Your task to perform on an android device: open app "Etsy: Buy & Sell Unique Items" (install if not already installed) and enter user name: "camp@inbox.com" and password: "unrelated" Image 0: 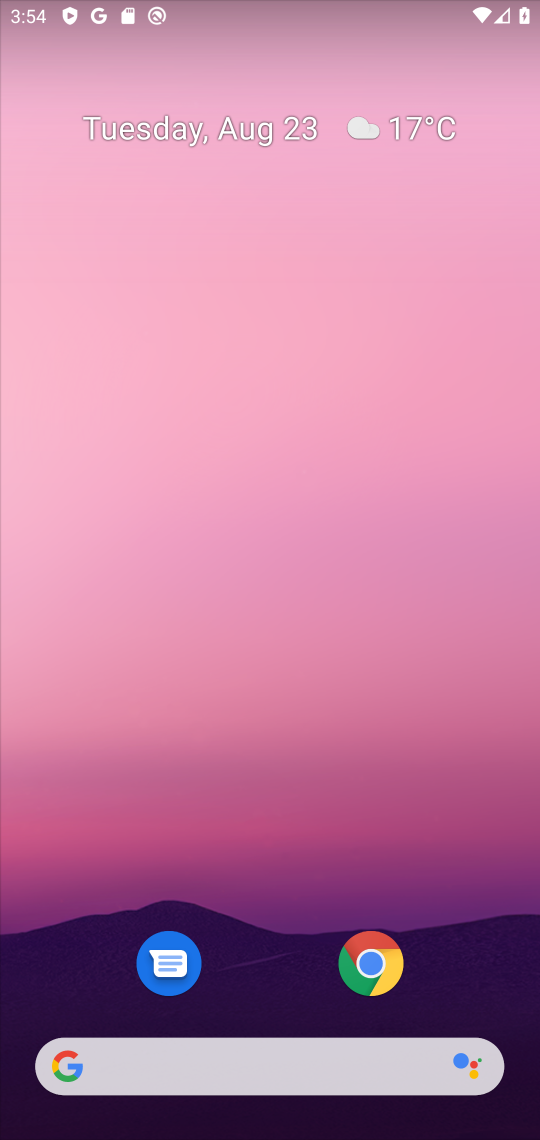
Step 0: press home button
Your task to perform on an android device: open app "Etsy: Buy & Sell Unique Items" (install if not already installed) and enter user name: "camp@inbox.com" and password: "unrelated" Image 1: 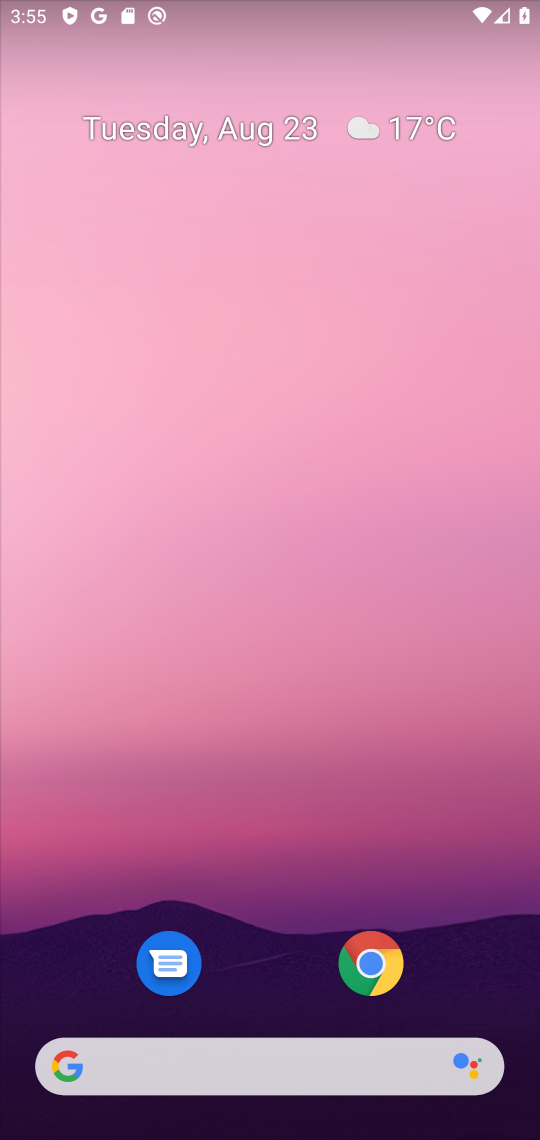
Step 1: drag from (280, 1014) to (316, 93)
Your task to perform on an android device: open app "Etsy: Buy & Sell Unique Items" (install if not already installed) and enter user name: "camp@inbox.com" and password: "unrelated" Image 2: 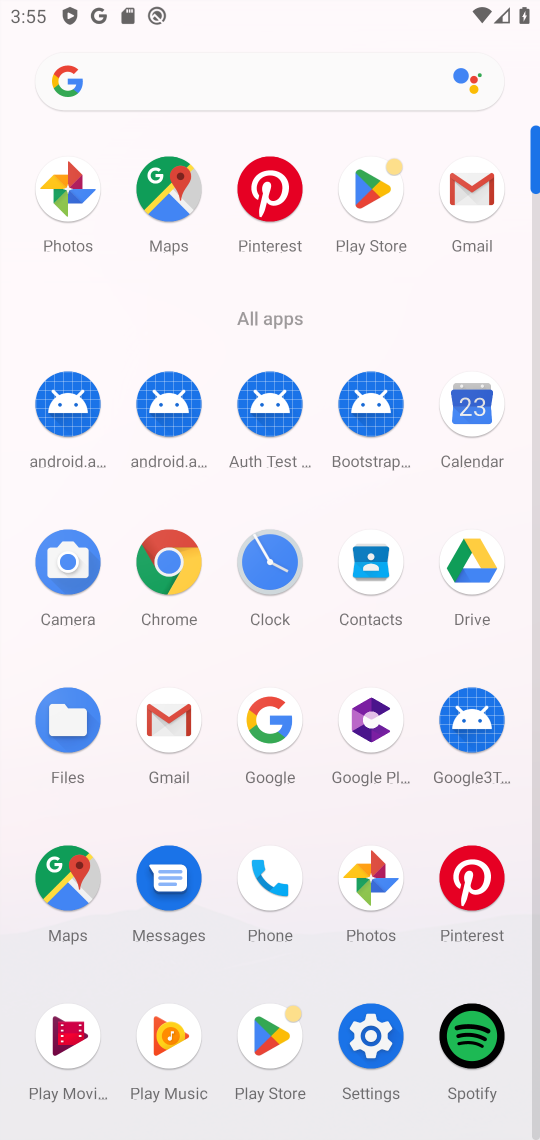
Step 2: click (372, 180)
Your task to perform on an android device: open app "Etsy: Buy & Sell Unique Items" (install if not already installed) and enter user name: "camp@inbox.com" and password: "unrelated" Image 3: 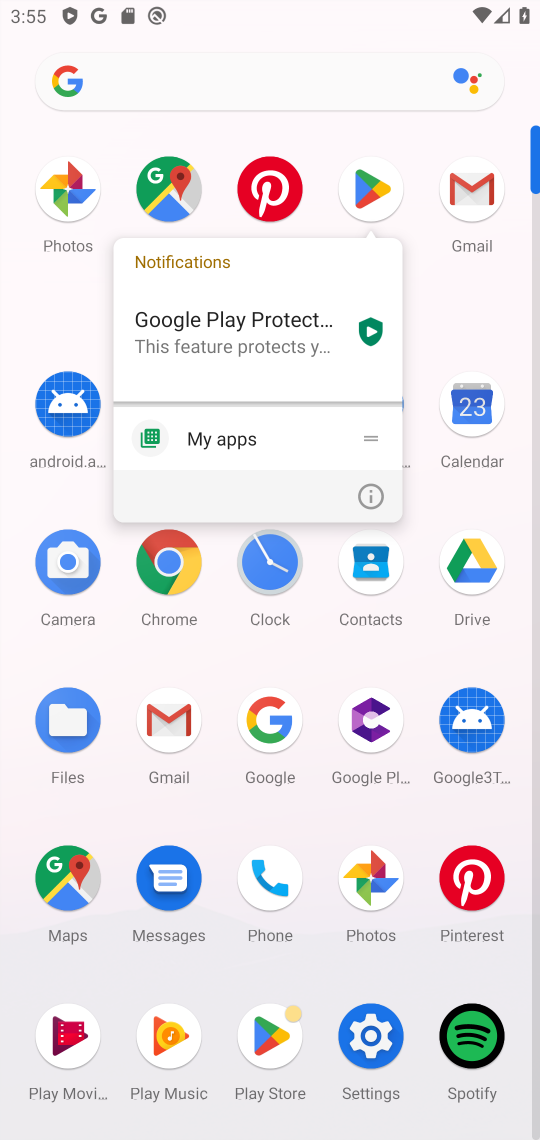
Step 3: click (373, 187)
Your task to perform on an android device: open app "Etsy: Buy & Sell Unique Items" (install if not already installed) and enter user name: "camp@inbox.com" and password: "unrelated" Image 4: 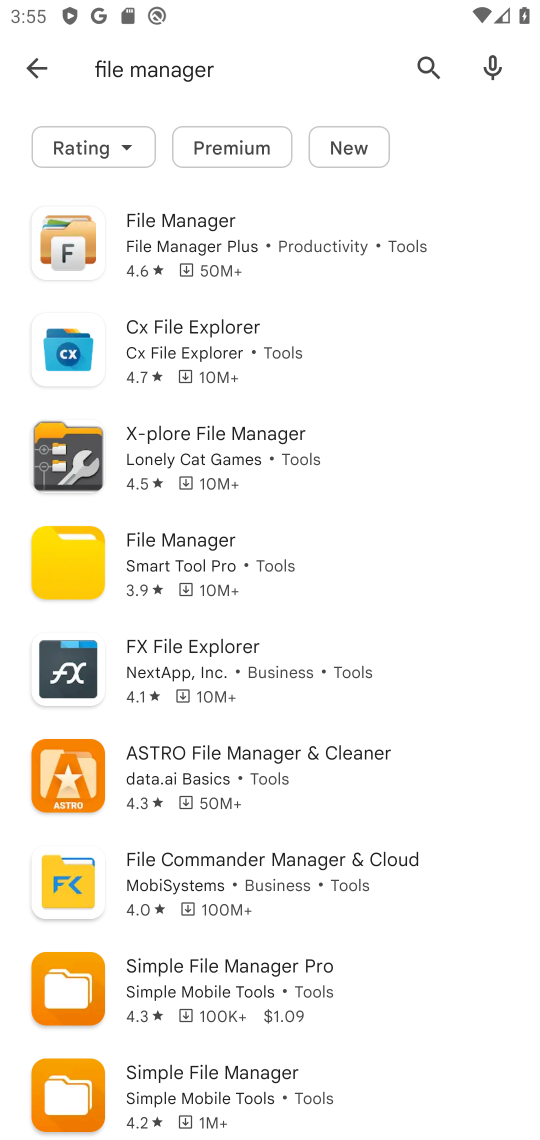
Step 4: click (423, 72)
Your task to perform on an android device: open app "Etsy: Buy & Sell Unique Items" (install if not already installed) and enter user name: "camp@inbox.com" and password: "unrelated" Image 5: 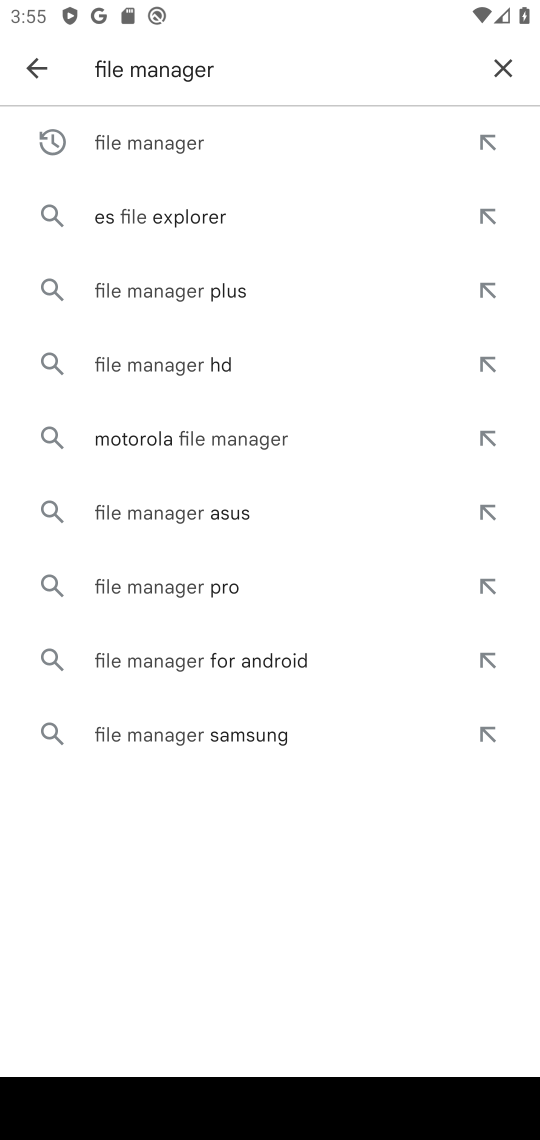
Step 5: click (513, 67)
Your task to perform on an android device: open app "Etsy: Buy & Sell Unique Items" (install if not already installed) and enter user name: "camp@inbox.com" and password: "unrelated" Image 6: 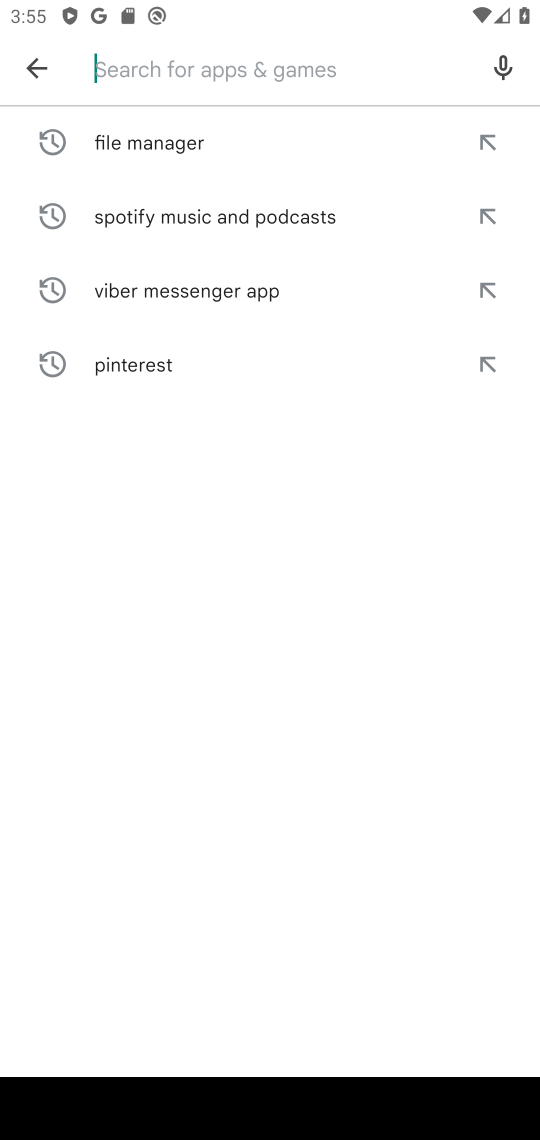
Step 6: type "Etsy"
Your task to perform on an android device: open app "Etsy: Buy & Sell Unique Items" (install if not already installed) and enter user name: "camp@inbox.com" and password: "unrelated" Image 7: 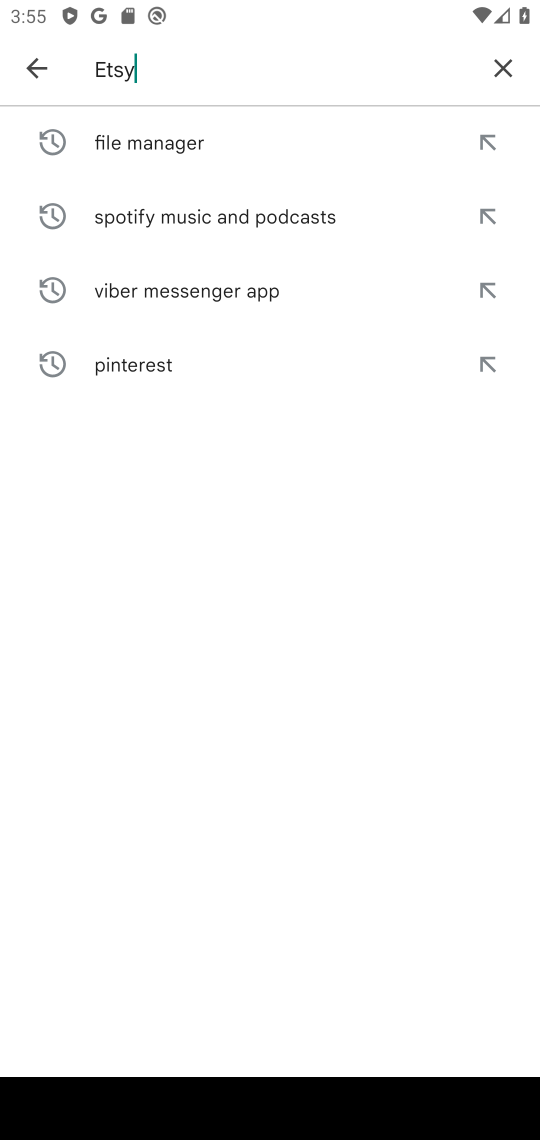
Step 7: type ""
Your task to perform on an android device: open app "Etsy: Buy & Sell Unique Items" (install if not already installed) and enter user name: "camp@inbox.com" and password: "unrelated" Image 8: 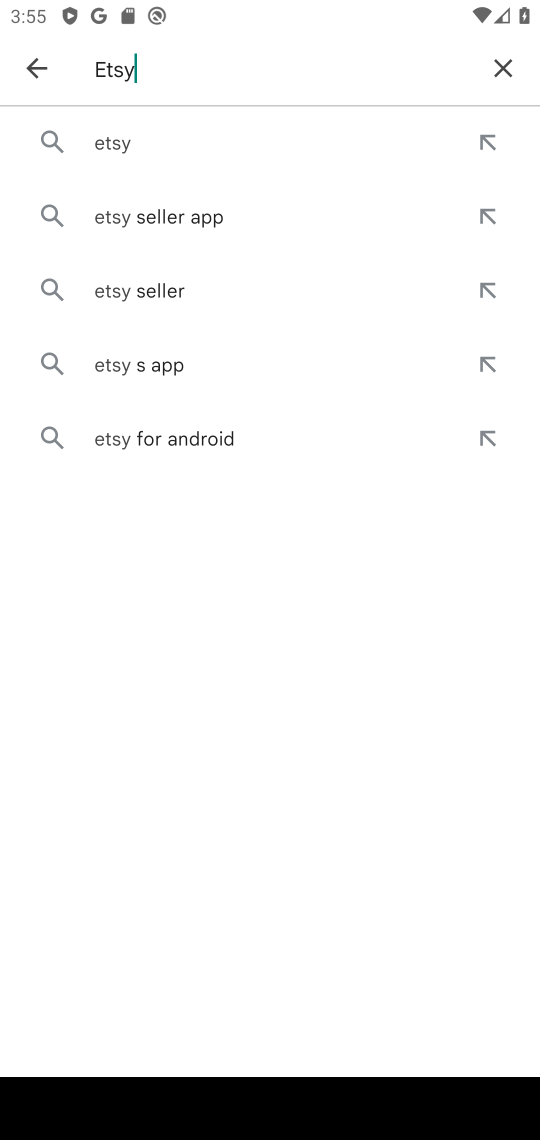
Step 8: click (124, 142)
Your task to perform on an android device: open app "Etsy: Buy & Sell Unique Items" (install if not already installed) and enter user name: "camp@inbox.com" and password: "unrelated" Image 9: 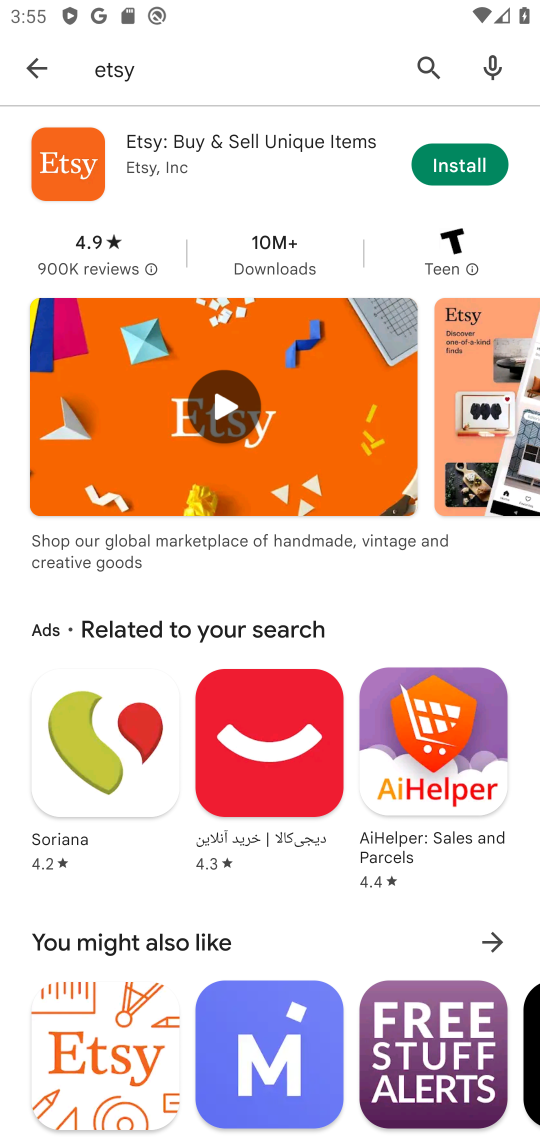
Step 9: click (458, 157)
Your task to perform on an android device: open app "Etsy: Buy & Sell Unique Items" (install if not already installed) and enter user name: "camp@inbox.com" and password: "unrelated" Image 10: 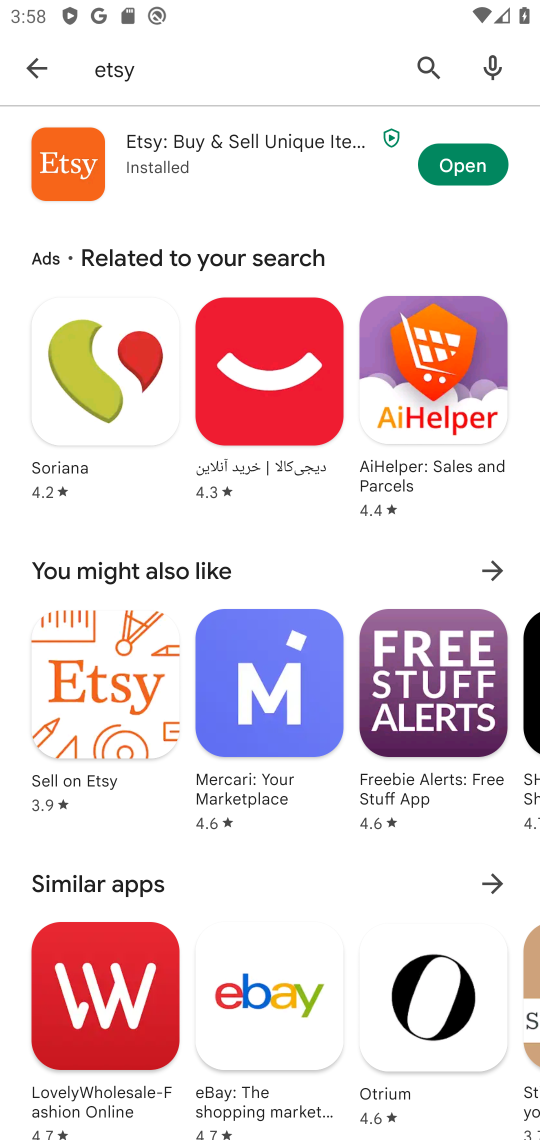
Step 10: click (481, 153)
Your task to perform on an android device: open app "Etsy: Buy & Sell Unique Items" (install if not already installed) and enter user name: "camp@inbox.com" and password: "unrelated" Image 11: 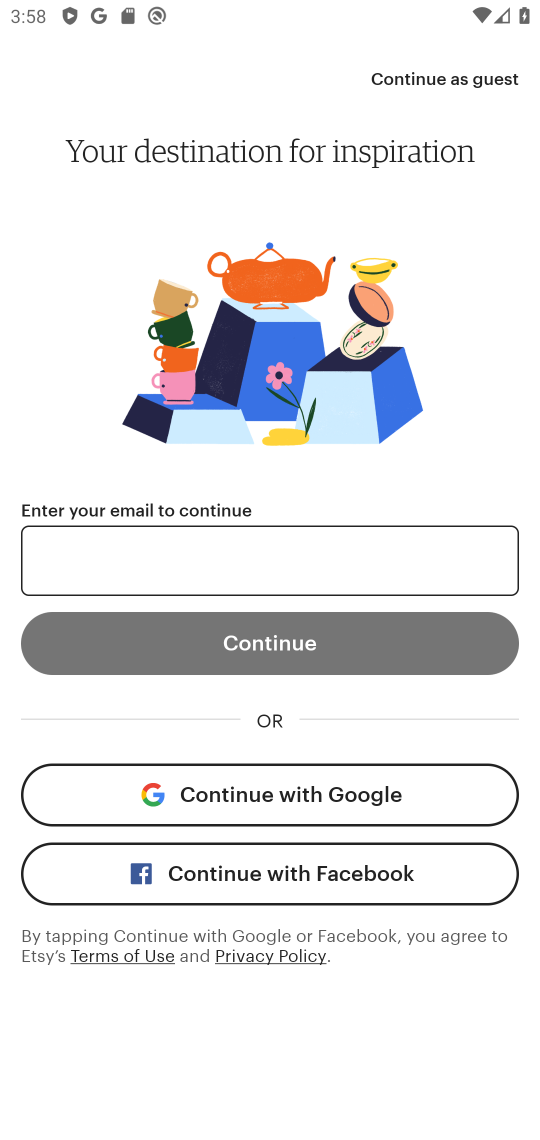
Step 11: type "camp@inbox.com"
Your task to perform on an android device: open app "Etsy: Buy & Sell Unique Items" (install if not already installed) and enter user name: "camp@inbox.com" and password: "unrelated" Image 12: 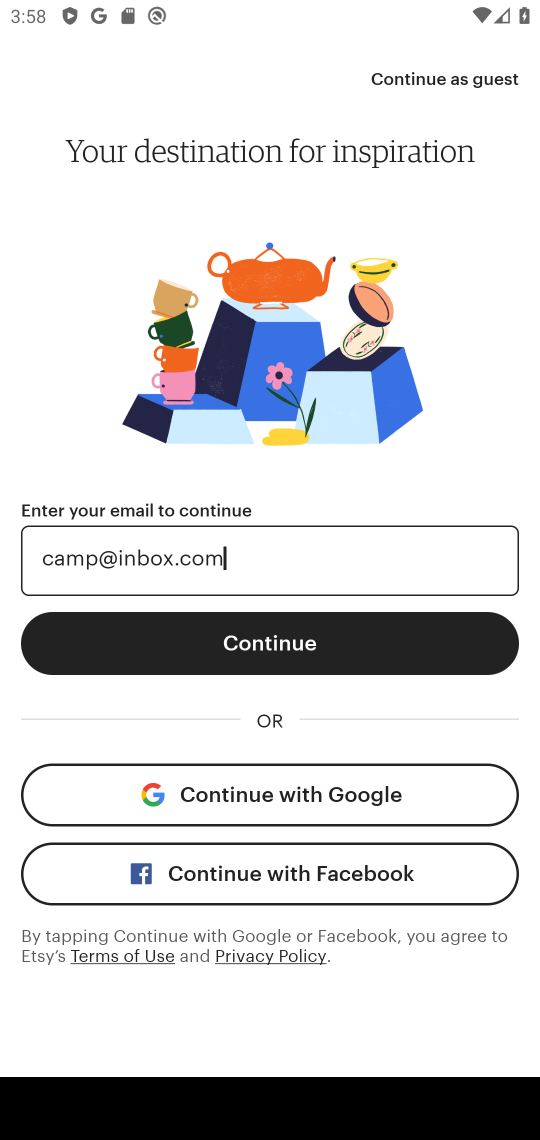
Step 12: click (286, 645)
Your task to perform on an android device: open app "Etsy: Buy & Sell Unique Items" (install if not already installed) and enter user name: "camp@inbox.com" and password: "unrelated" Image 13: 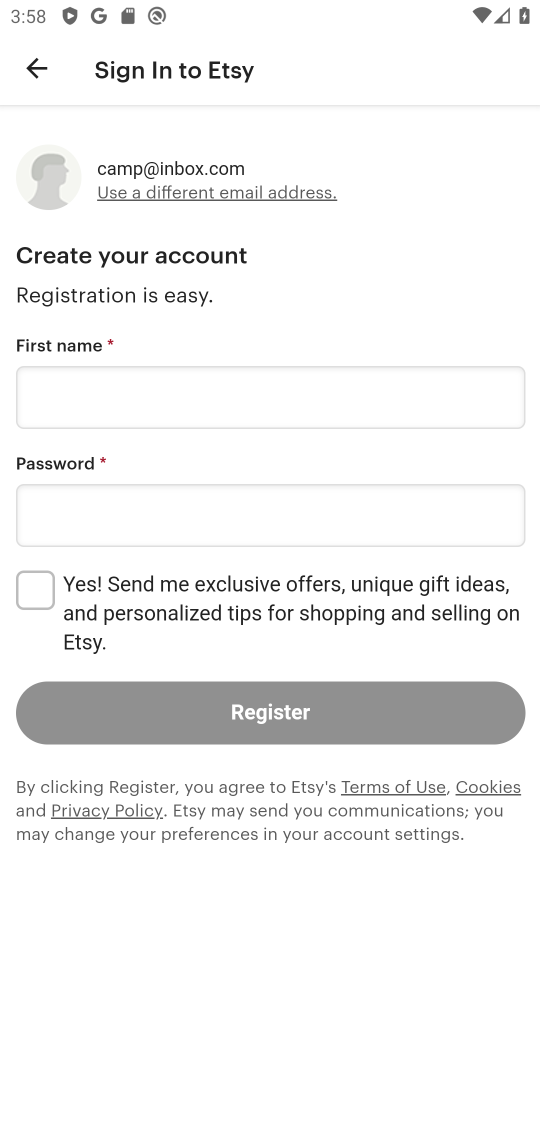
Step 13: click (102, 391)
Your task to perform on an android device: open app "Etsy: Buy & Sell Unique Items" (install if not already installed) and enter user name: "camp@inbox.com" and password: "unrelated" Image 14: 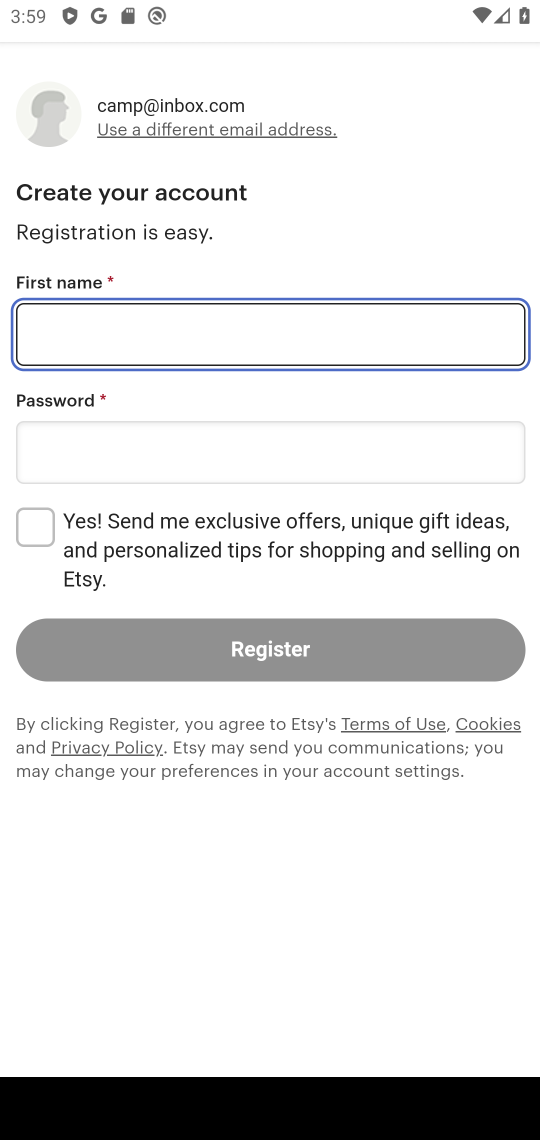
Step 14: click (211, 327)
Your task to perform on an android device: open app "Etsy: Buy & Sell Unique Items" (install if not already installed) and enter user name: "camp@inbox.com" and password: "unrelated" Image 15: 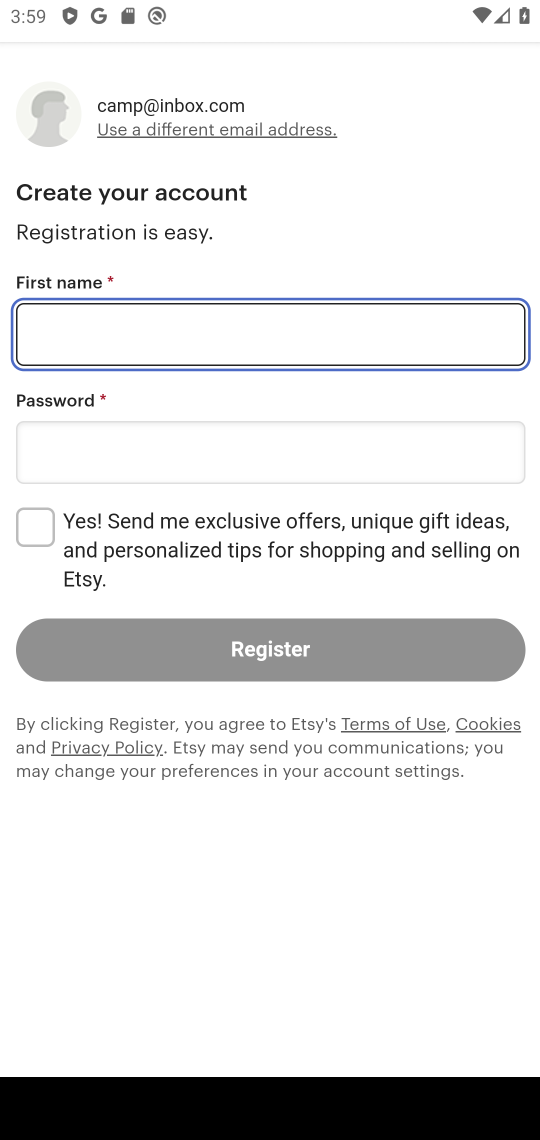
Step 15: type "unrelated"
Your task to perform on an android device: open app "Etsy: Buy & Sell Unique Items" (install if not already installed) and enter user name: "camp@inbox.com" and password: "unrelated" Image 16: 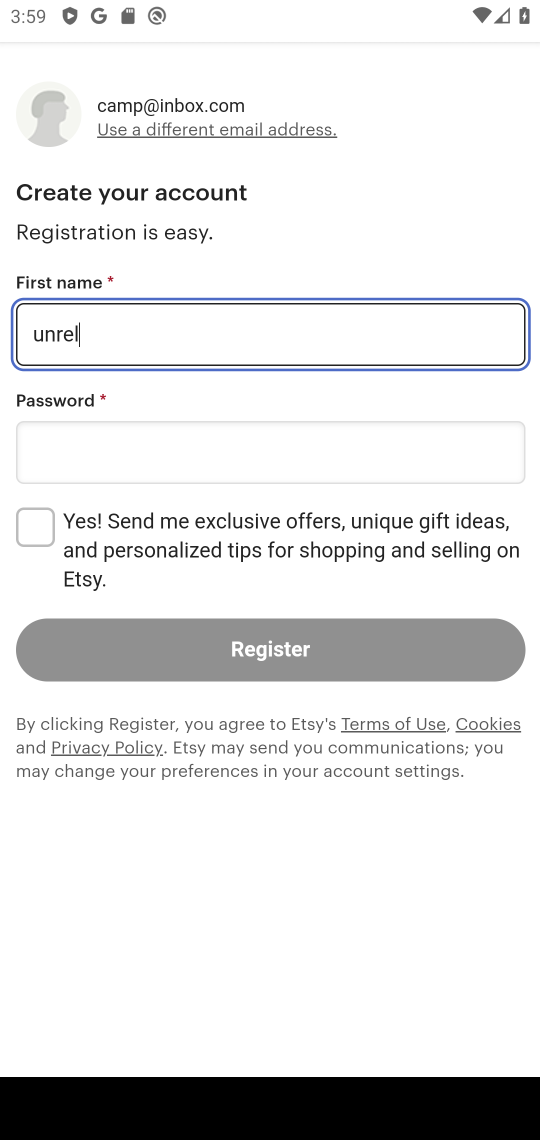
Step 16: type ""
Your task to perform on an android device: open app "Etsy: Buy & Sell Unique Items" (install if not already installed) and enter user name: "camp@inbox.com" and password: "unrelated" Image 17: 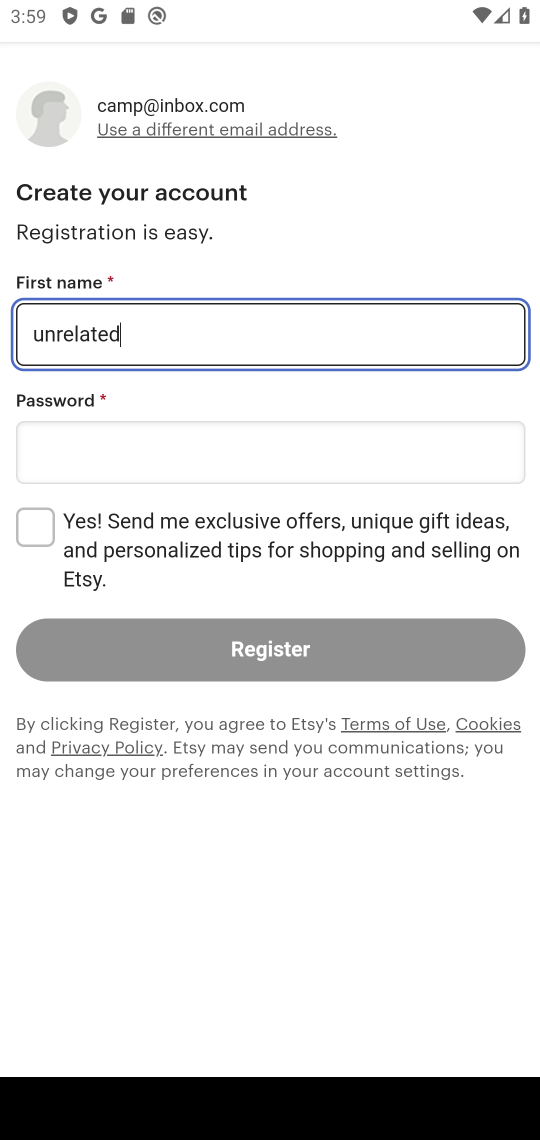
Step 17: click (85, 447)
Your task to perform on an android device: open app "Etsy: Buy & Sell Unique Items" (install if not already installed) and enter user name: "camp@inbox.com" and password: "unrelated" Image 18: 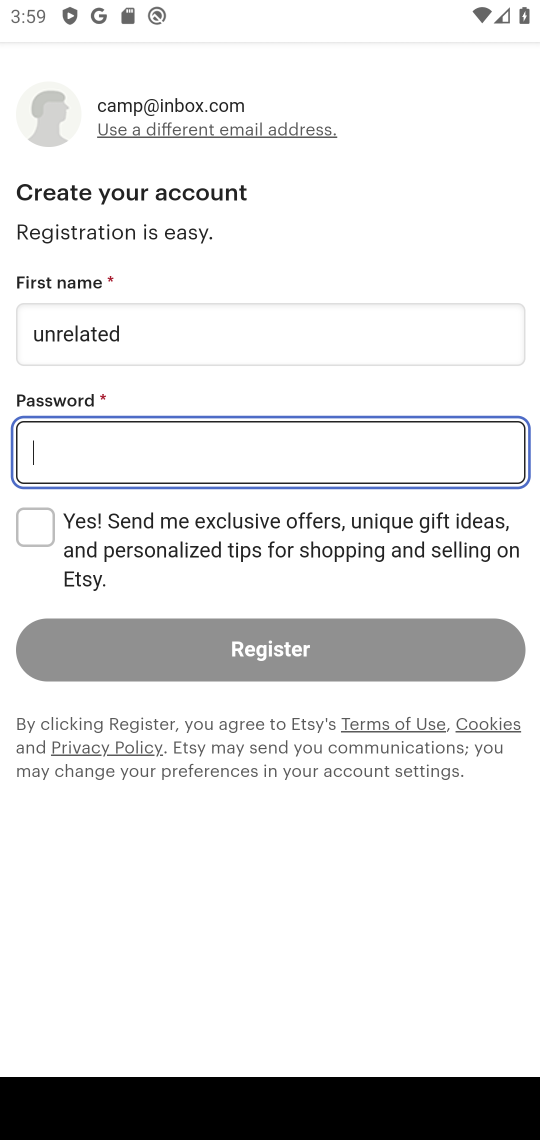
Step 18: type "unrelated"
Your task to perform on an android device: open app "Etsy: Buy & Sell Unique Items" (install if not already installed) and enter user name: "camp@inbox.com" and password: "unrelated" Image 19: 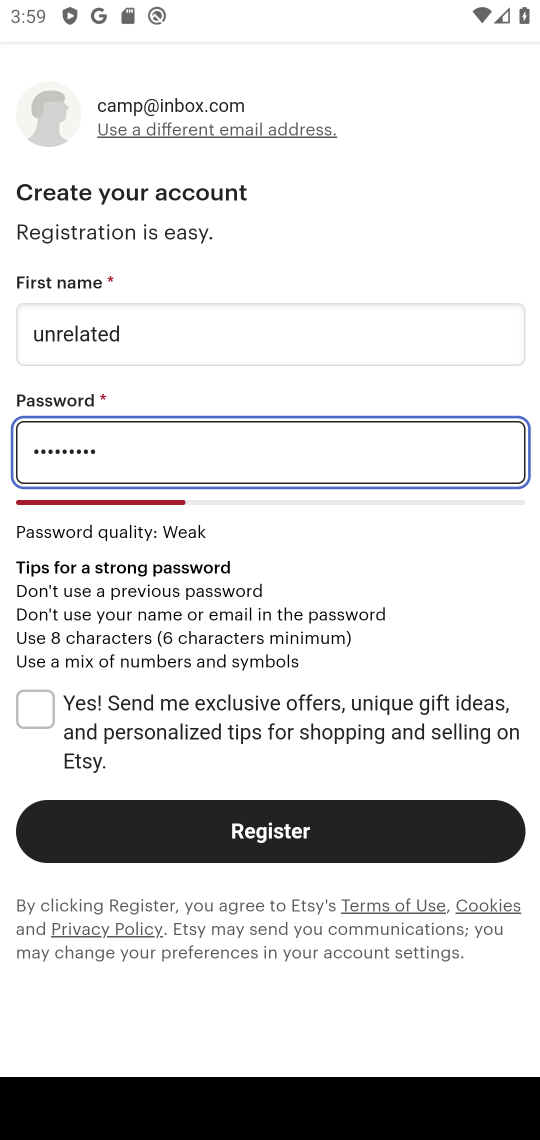
Step 19: click (148, 325)
Your task to perform on an android device: open app "Etsy: Buy & Sell Unique Items" (install if not already installed) and enter user name: "camp@inbox.com" and password: "unrelated" Image 20: 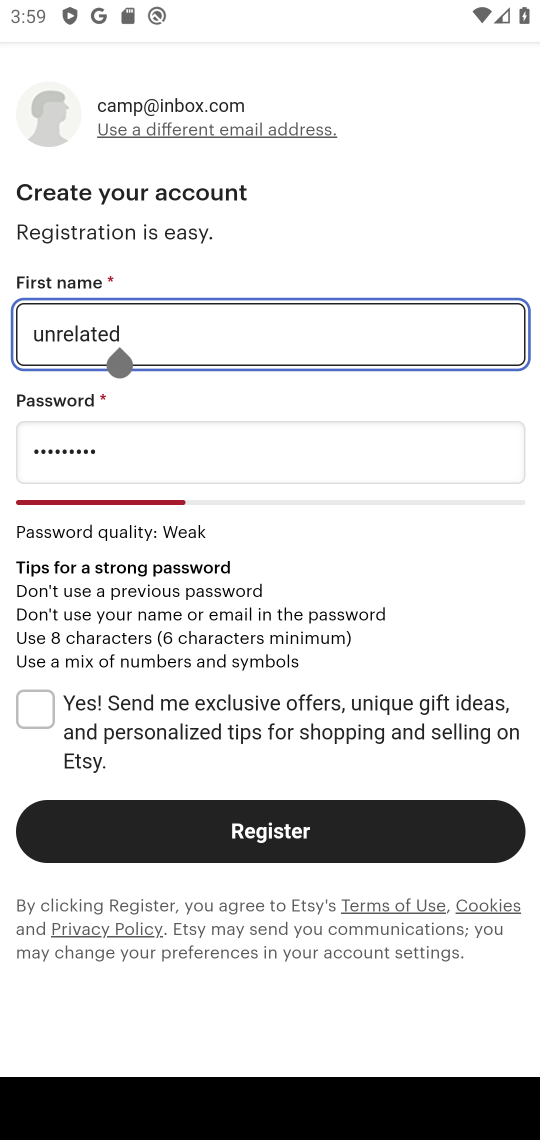
Step 20: task complete